Your task to perform on an android device: delete the emails in spam in the gmail app Image 0: 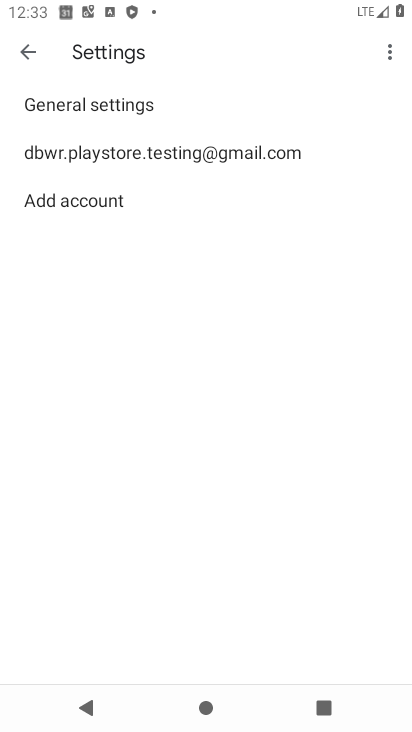
Step 0: press home button
Your task to perform on an android device: delete the emails in spam in the gmail app Image 1: 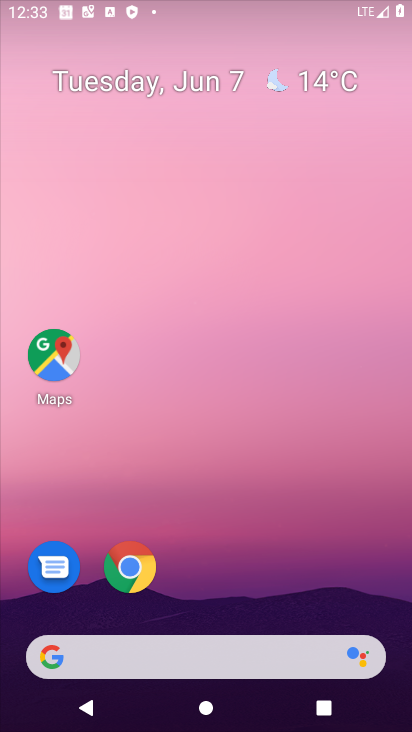
Step 1: drag from (260, 664) to (256, 173)
Your task to perform on an android device: delete the emails in spam in the gmail app Image 2: 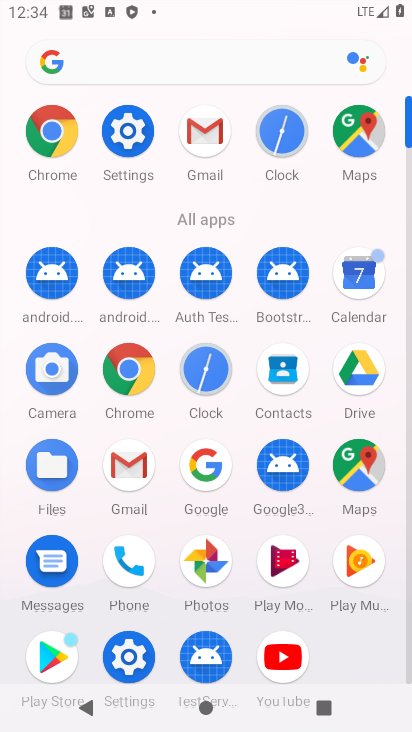
Step 2: click (142, 458)
Your task to perform on an android device: delete the emails in spam in the gmail app Image 3: 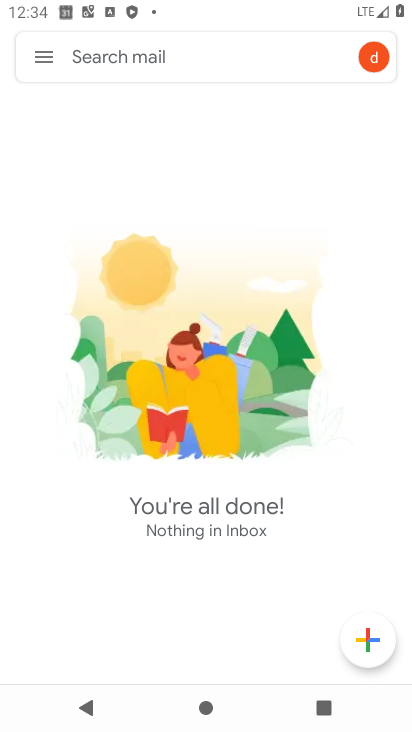
Step 3: click (44, 55)
Your task to perform on an android device: delete the emails in spam in the gmail app Image 4: 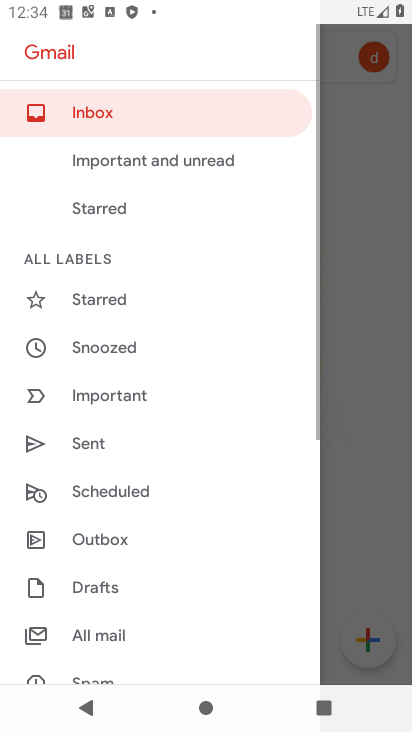
Step 4: drag from (146, 593) to (159, 378)
Your task to perform on an android device: delete the emails in spam in the gmail app Image 5: 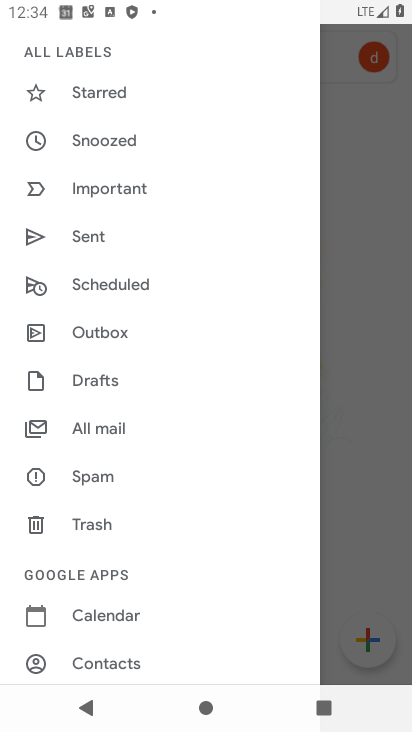
Step 5: click (113, 498)
Your task to perform on an android device: delete the emails in spam in the gmail app Image 6: 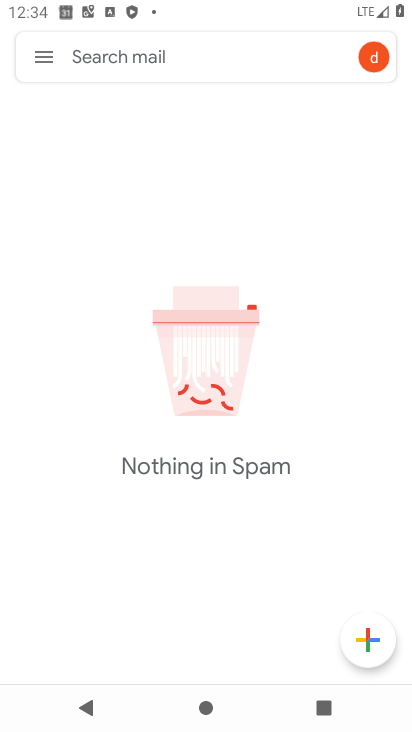
Step 6: task complete